Your task to perform on an android device: turn off priority inbox in the gmail app Image 0: 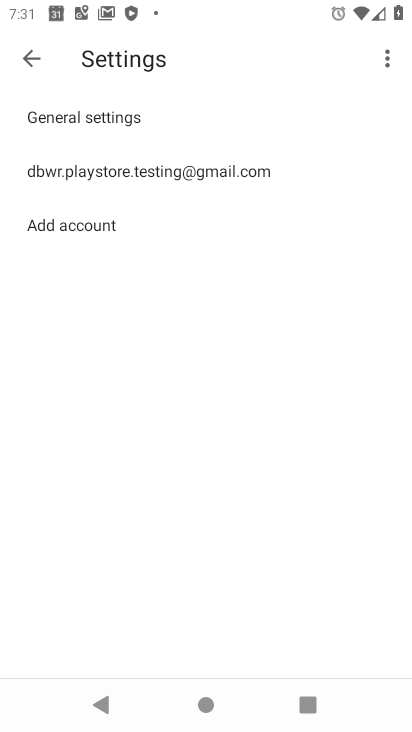
Step 0: press home button
Your task to perform on an android device: turn off priority inbox in the gmail app Image 1: 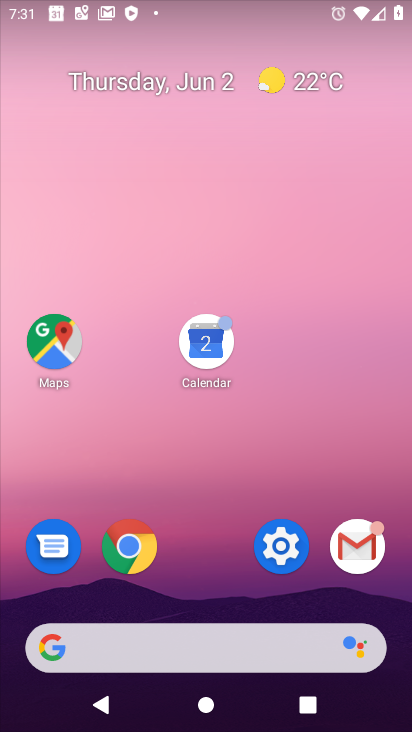
Step 1: click (355, 543)
Your task to perform on an android device: turn off priority inbox in the gmail app Image 2: 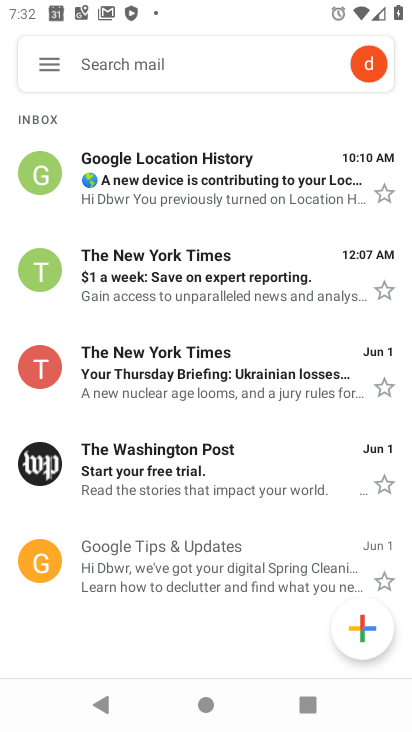
Step 2: click (49, 68)
Your task to perform on an android device: turn off priority inbox in the gmail app Image 3: 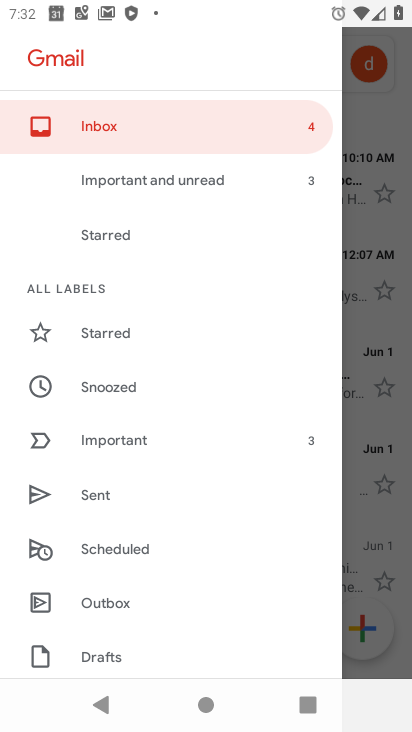
Step 3: drag from (131, 573) to (175, 139)
Your task to perform on an android device: turn off priority inbox in the gmail app Image 4: 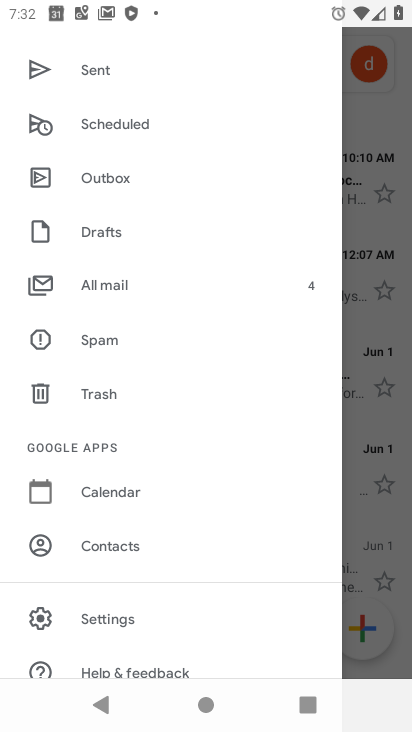
Step 4: click (125, 622)
Your task to perform on an android device: turn off priority inbox in the gmail app Image 5: 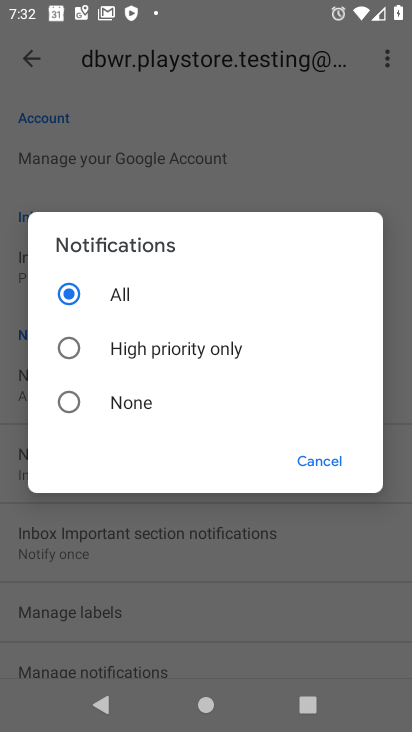
Step 5: click (316, 468)
Your task to perform on an android device: turn off priority inbox in the gmail app Image 6: 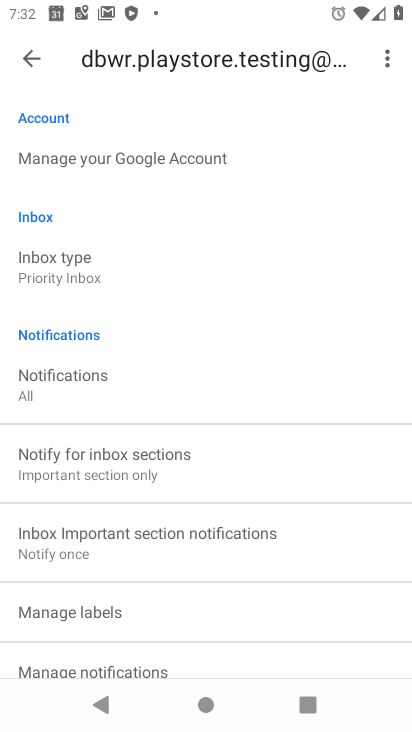
Step 6: click (128, 264)
Your task to perform on an android device: turn off priority inbox in the gmail app Image 7: 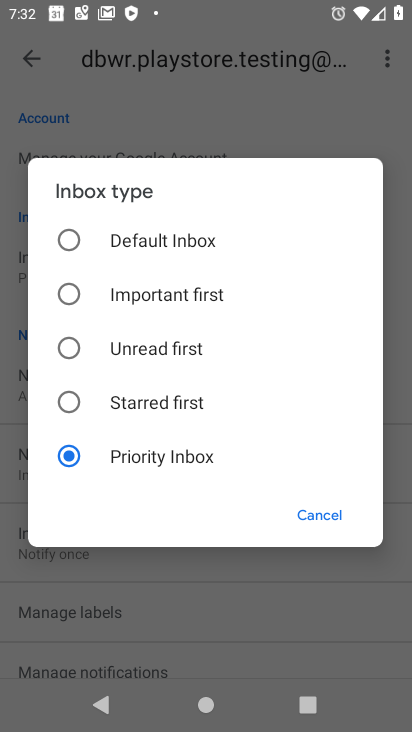
Step 7: click (137, 243)
Your task to perform on an android device: turn off priority inbox in the gmail app Image 8: 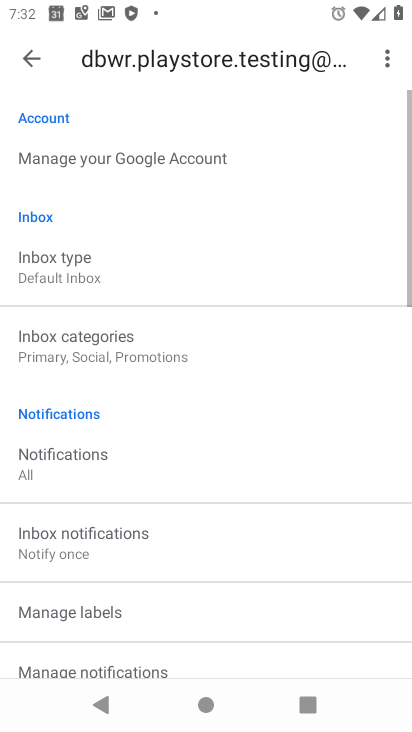
Step 8: task complete